Your task to perform on an android device: open app "Gmail" Image 0: 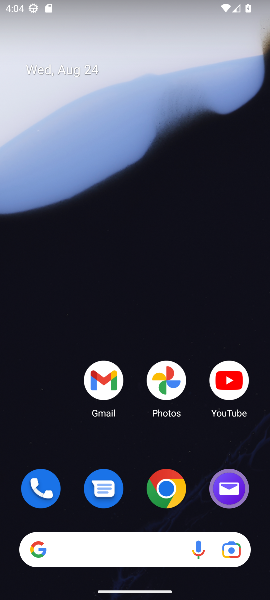
Step 0: click (101, 393)
Your task to perform on an android device: open app "Gmail" Image 1: 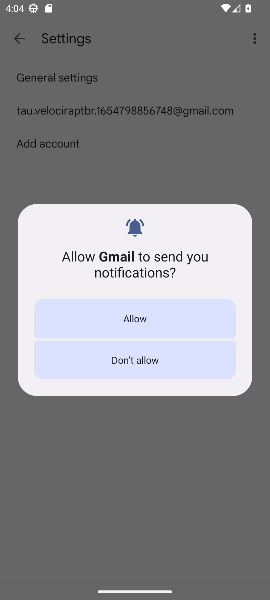
Step 1: click (141, 326)
Your task to perform on an android device: open app "Gmail" Image 2: 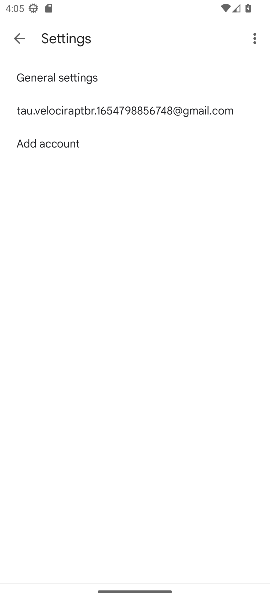
Step 2: task complete